Your task to perform on an android device: Open the Play Movies app and select the watchlist tab. Image 0: 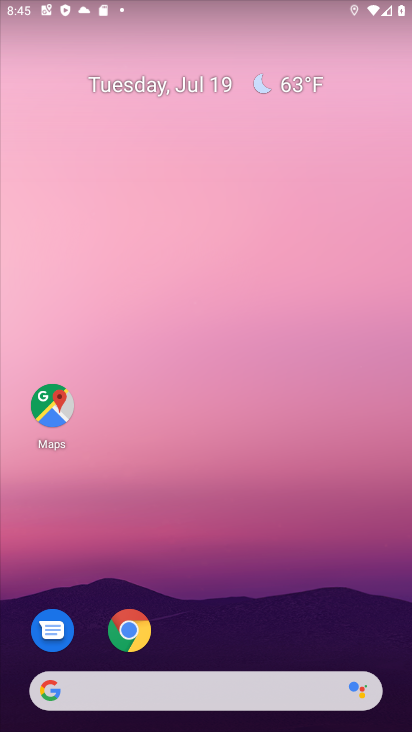
Step 0: drag from (220, 695) to (252, 308)
Your task to perform on an android device: Open the Play Movies app and select the watchlist tab. Image 1: 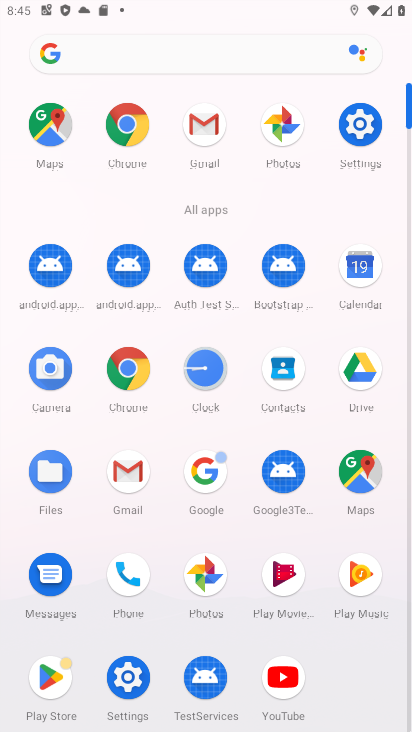
Step 1: click (286, 574)
Your task to perform on an android device: Open the Play Movies app and select the watchlist tab. Image 2: 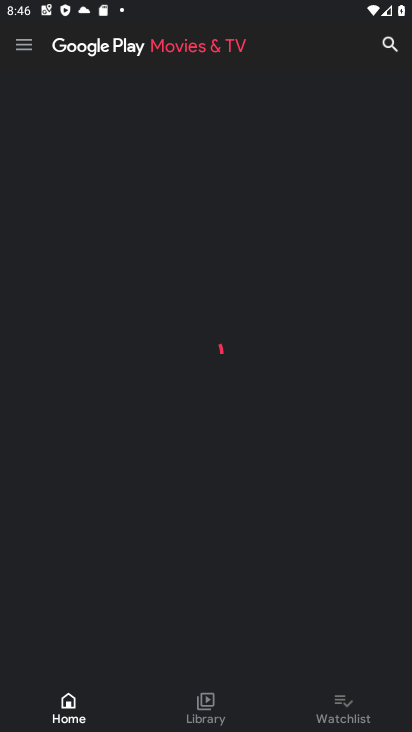
Step 2: click (335, 699)
Your task to perform on an android device: Open the Play Movies app and select the watchlist tab. Image 3: 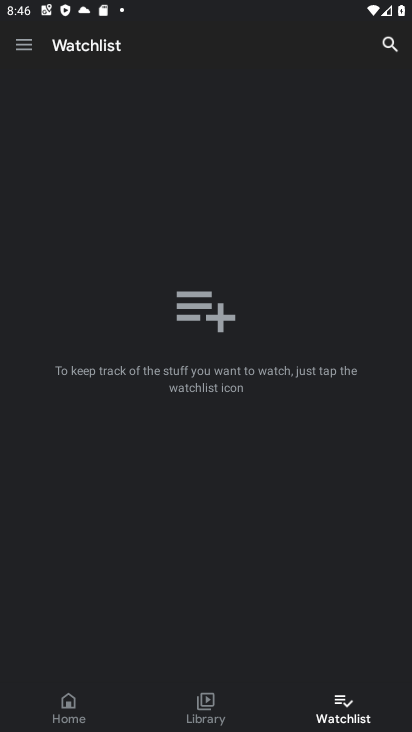
Step 3: task complete